Your task to perform on an android device: Search for seafood restaurants on Google Maps Image 0: 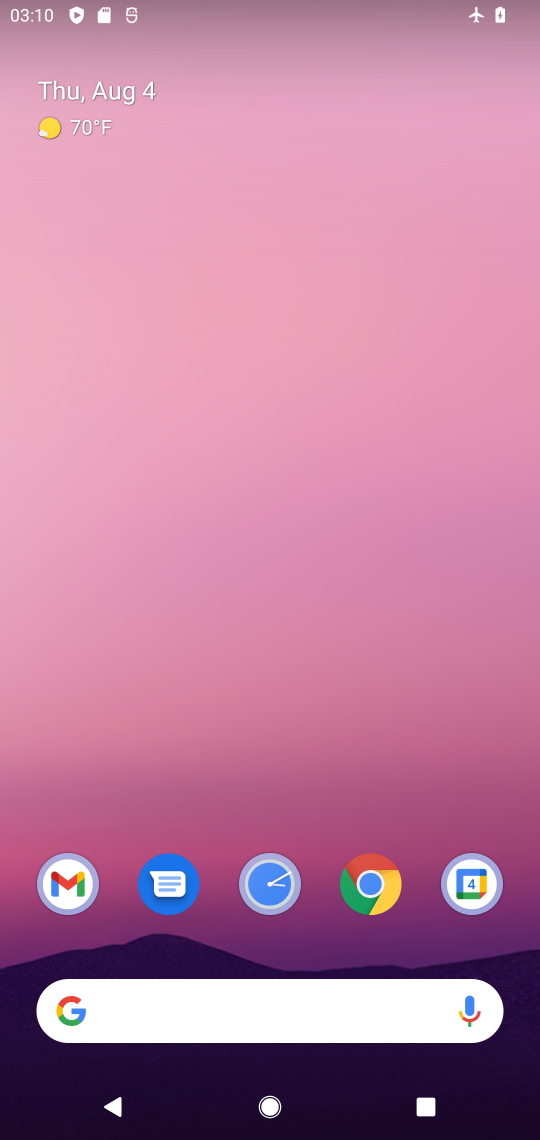
Step 0: press home button
Your task to perform on an android device: Search for seafood restaurants on Google Maps Image 1: 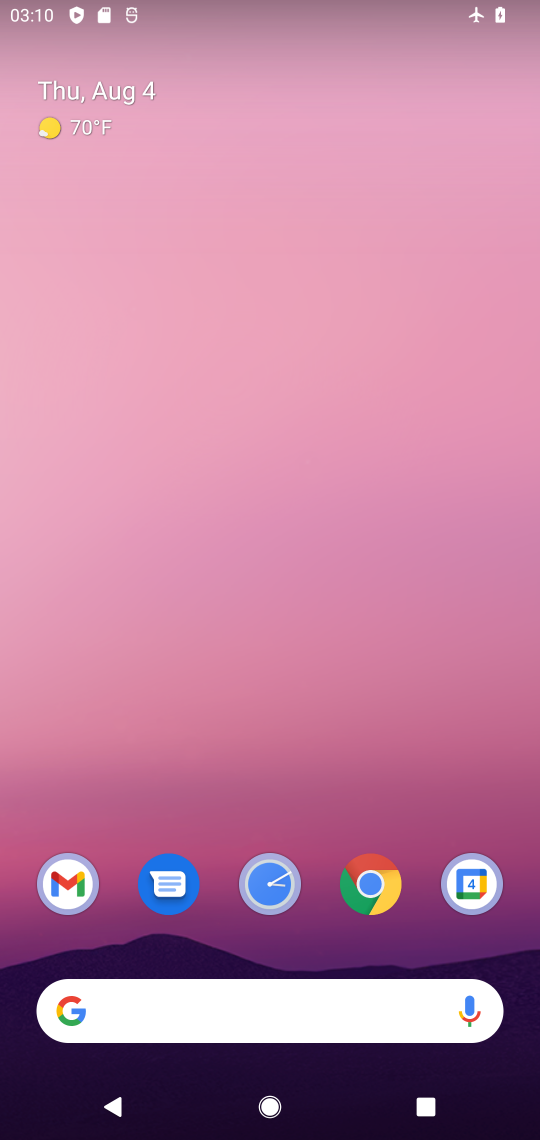
Step 1: drag from (322, 841) to (357, 300)
Your task to perform on an android device: Search for seafood restaurants on Google Maps Image 2: 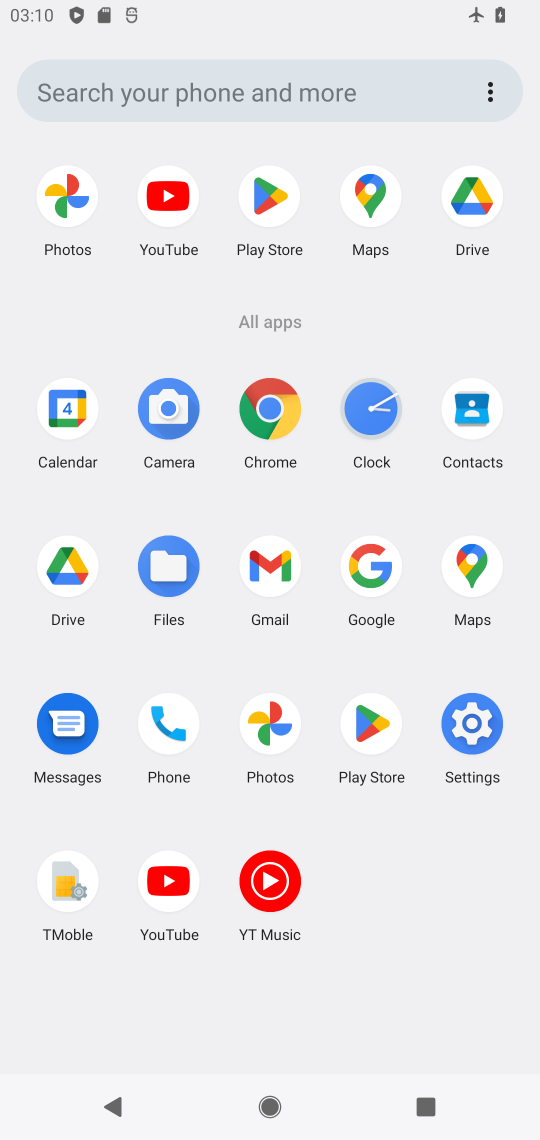
Step 2: click (480, 564)
Your task to perform on an android device: Search for seafood restaurants on Google Maps Image 3: 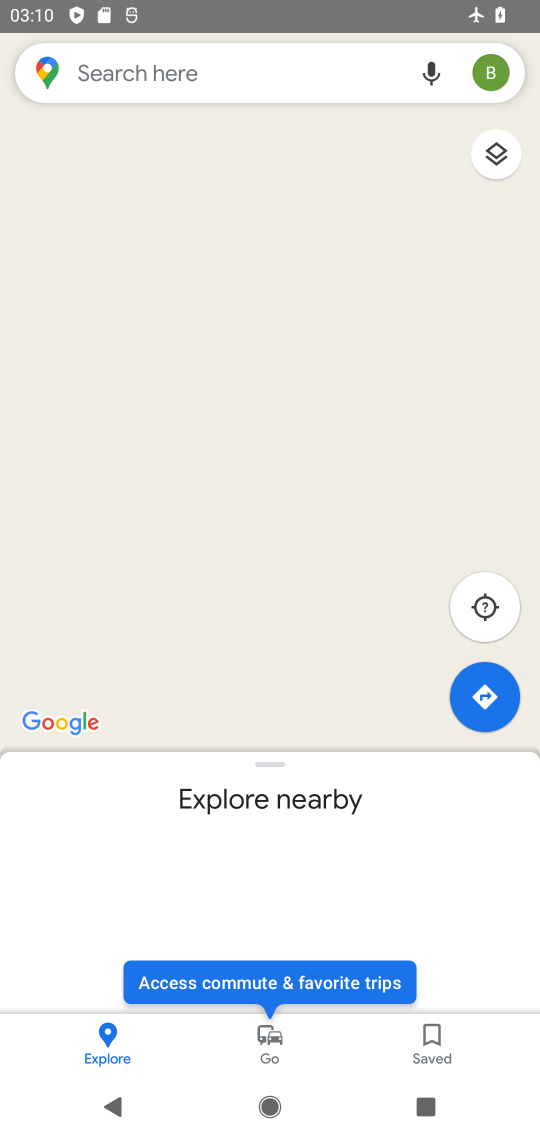
Step 3: click (189, 77)
Your task to perform on an android device: Search for seafood restaurants on Google Maps Image 4: 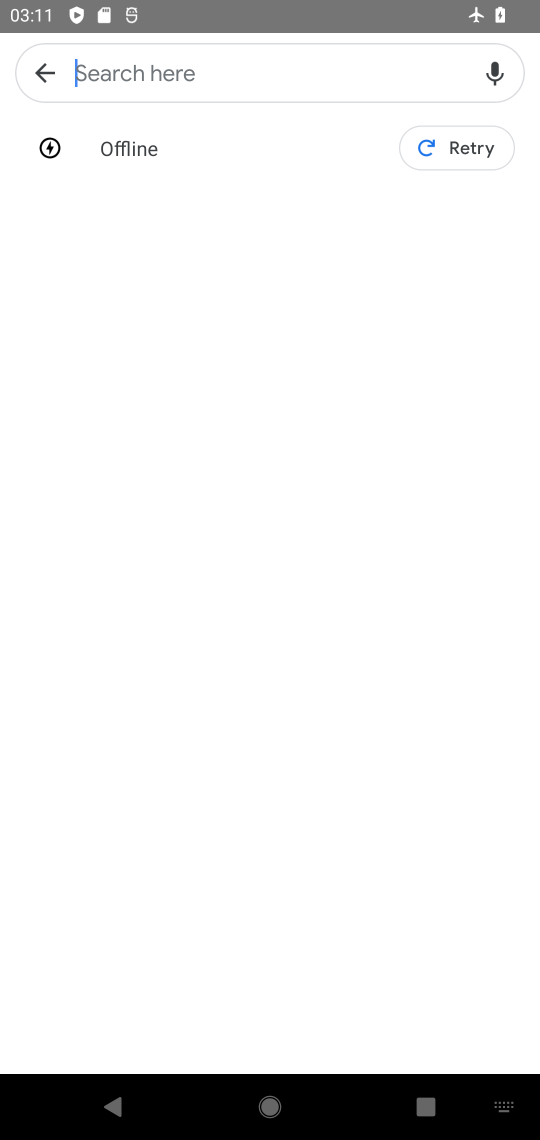
Step 4: type "seafood restaurants"
Your task to perform on an android device: Search for seafood restaurants on Google Maps Image 5: 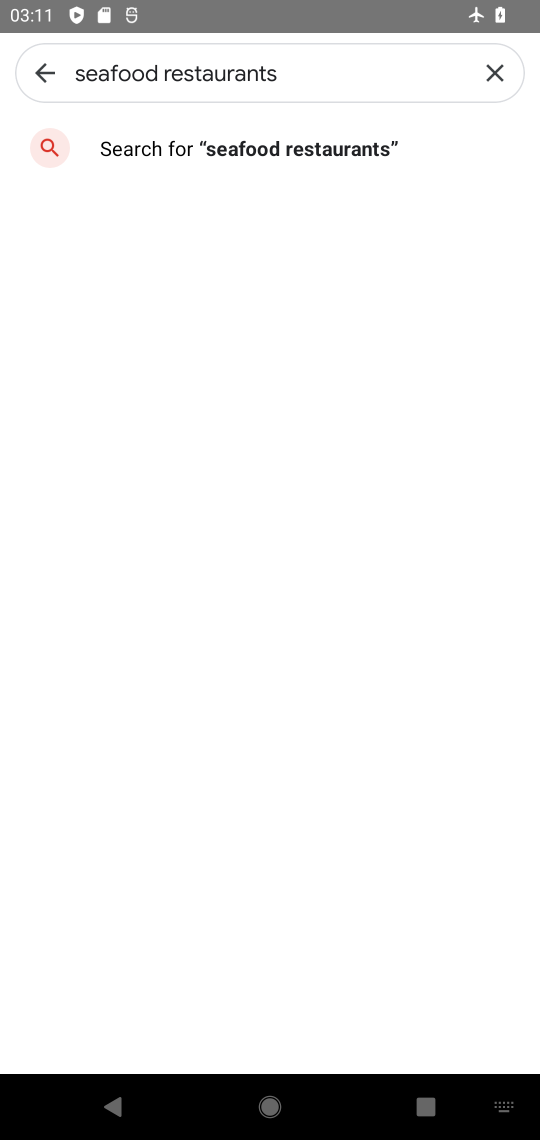
Step 5: task complete